Your task to perform on an android device: Open Google Image 0: 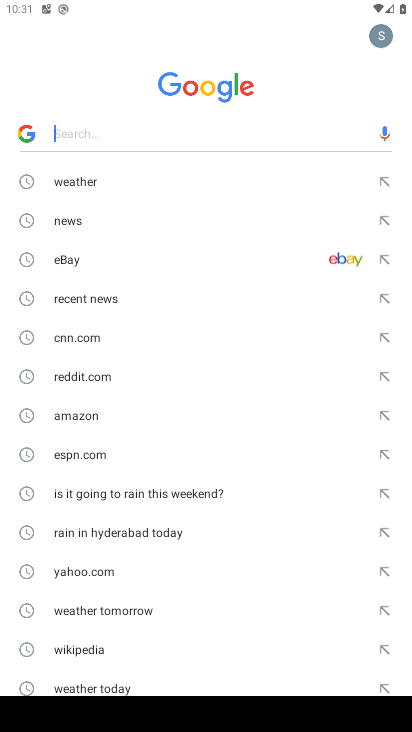
Step 0: press home button
Your task to perform on an android device: Open Google Image 1: 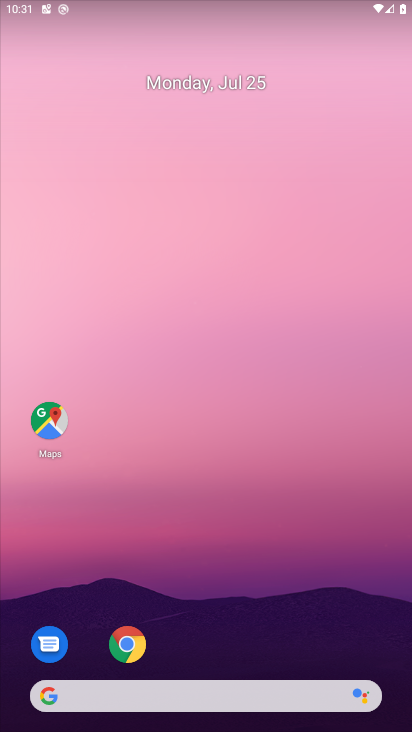
Step 1: drag from (297, 643) to (265, 372)
Your task to perform on an android device: Open Google Image 2: 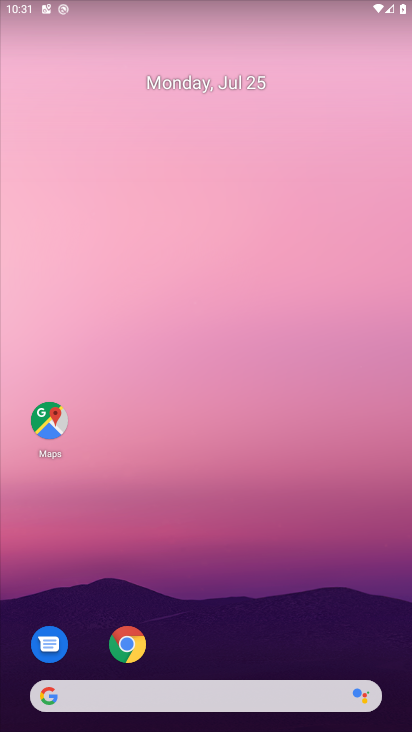
Step 2: drag from (370, 471) to (303, 37)
Your task to perform on an android device: Open Google Image 3: 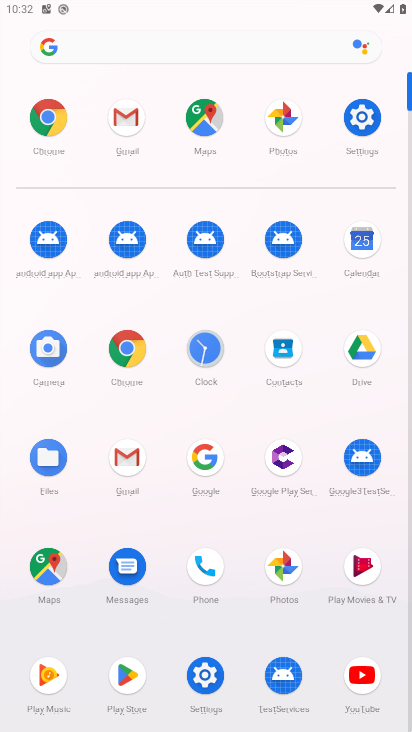
Step 3: click (224, 458)
Your task to perform on an android device: Open Google Image 4: 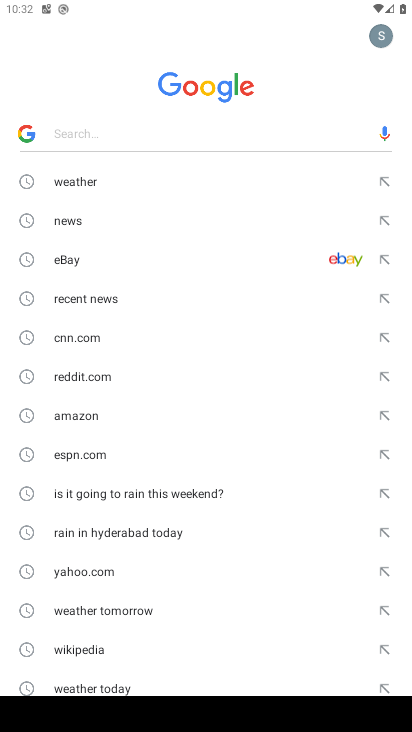
Step 4: task complete